Your task to perform on an android device: toggle pop-ups in chrome Image 0: 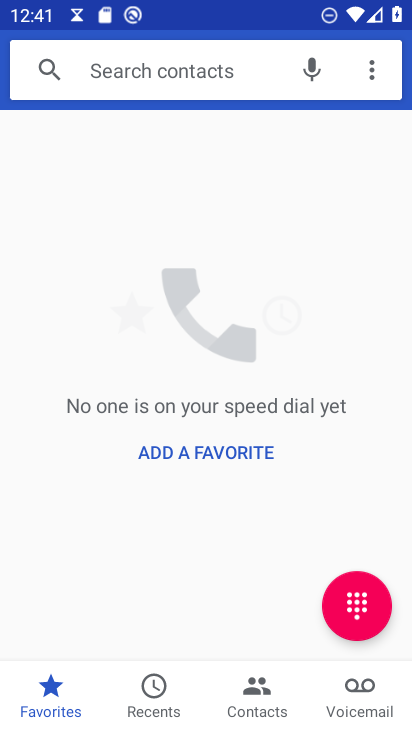
Step 0: press home button
Your task to perform on an android device: toggle pop-ups in chrome Image 1: 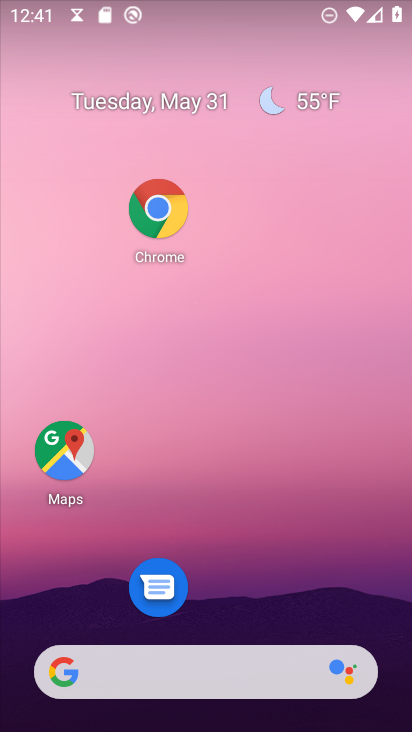
Step 1: click (164, 222)
Your task to perform on an android device: toggle pop-ups in chrome Image 2: 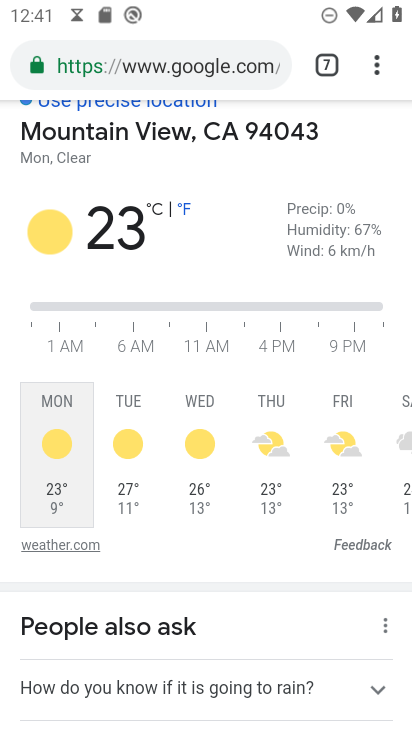
Step 2: click (373, 60)
Your task to perform on an android device: toggle pop-ups in chrome Image 3: 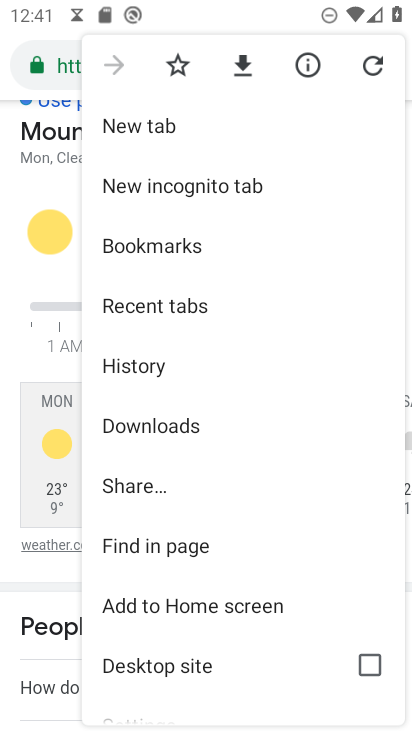
Step 3: drag from (168, 677) to (178, 441)
Your task to perform on an android device: toggle pop-ups in chrome Image 4: 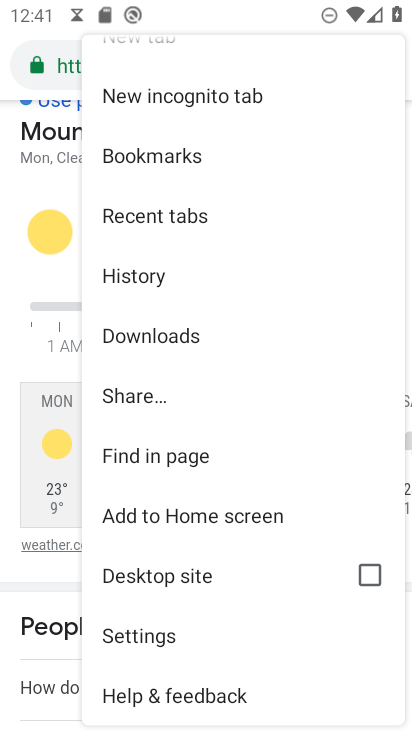
Step 4: click (144, 636)
Your task to perform on an android device: toggle pop-ups in chrome Image 5: 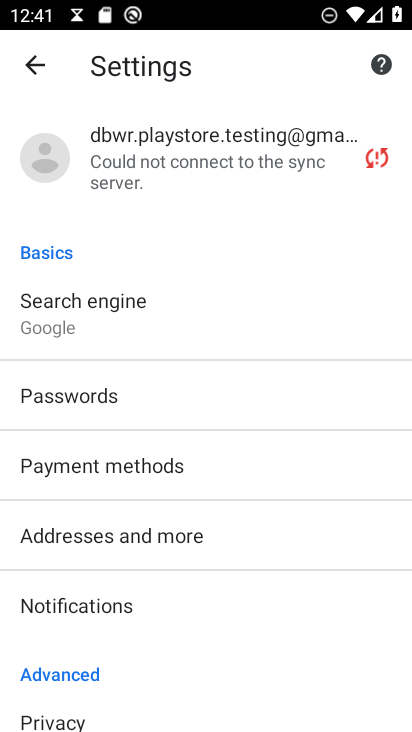
Step 5: drag from (162, 660) to (176, 282)
Your task to perform on an android device: toggle pop-ups in chrome Image 6: 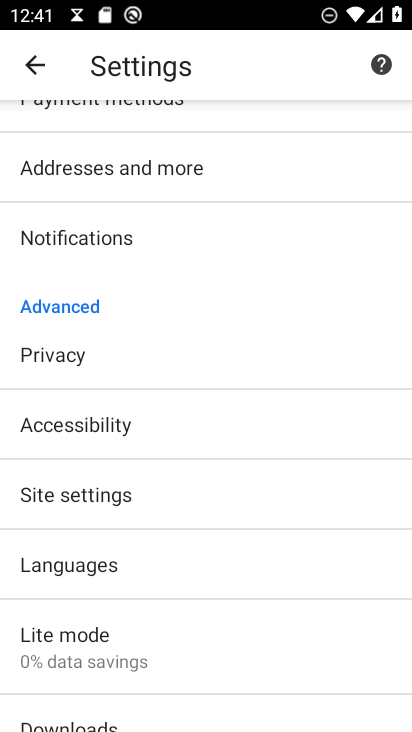
Step 6: click (61, 499)
Your task to perform on an android device: toggle pop-ups in chrome Image 7: 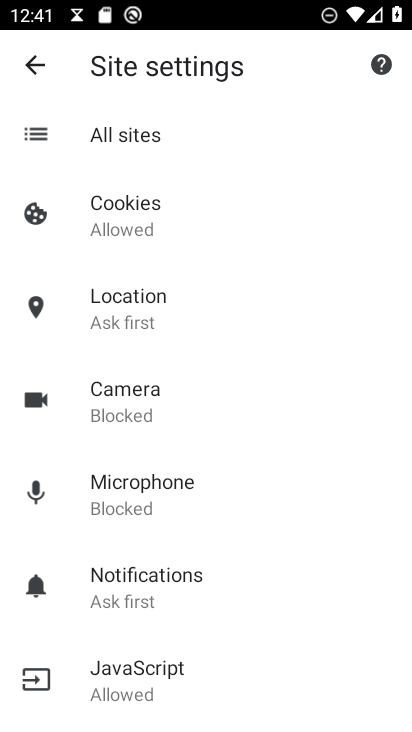
Step 7: drag from (139, 645) to (121, 466)
Your task to perform on an android device: toggle pop-ups in chrome Image 8: 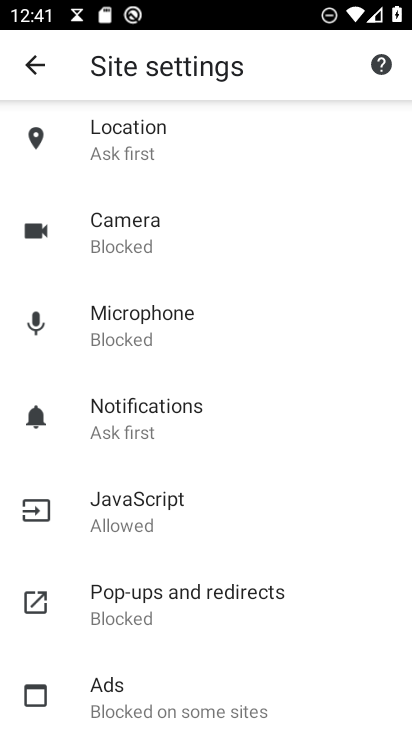
Step 8: click (184, 592)
Your task to perform on an android device: toggle pop-ups in chrome Image 9: 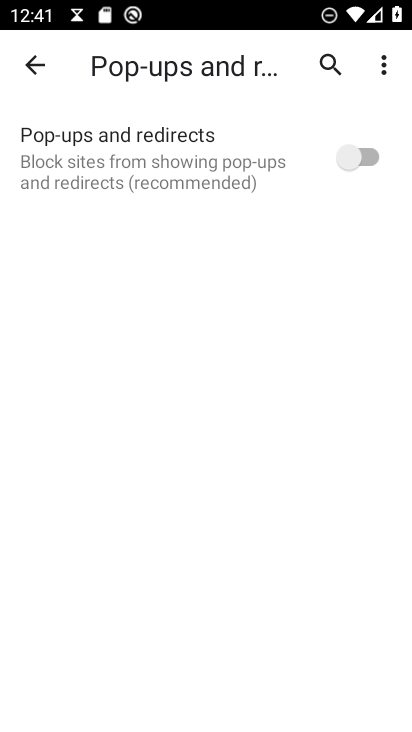
Step 9: click (359, 154)
Your task to perform on an android device: toggle pop-ups in chrome Image 10: 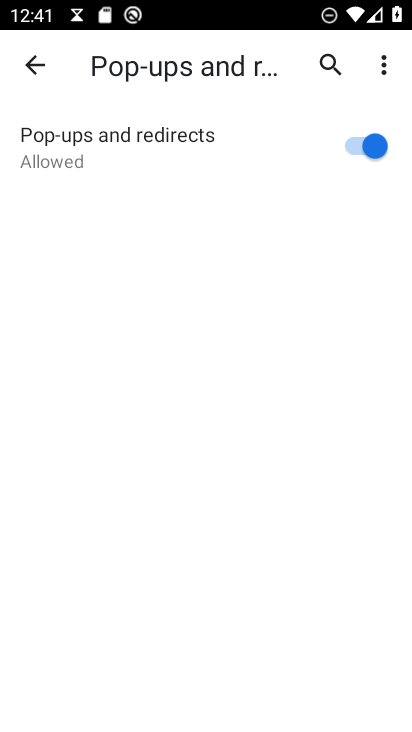
Step 10: task complete